Your task to perform on an android device: delete the emails in spam in the gmail app Image 0: 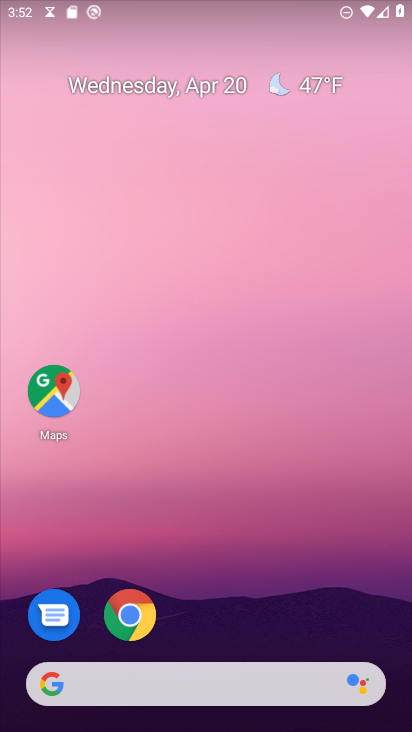
Step 0: click (173, 166)
Your task to perform on an android device: delete the emails in spam in the gmail app Image 1: 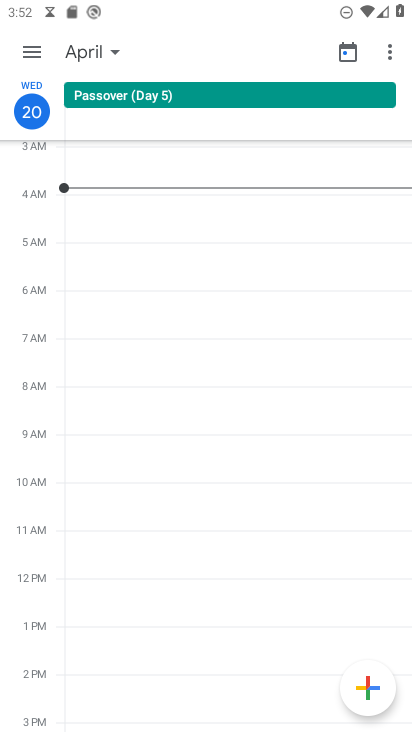
Step 1: press home button
Your task to perform on an android device: delete the emails in spam in the gmail app Image 2: 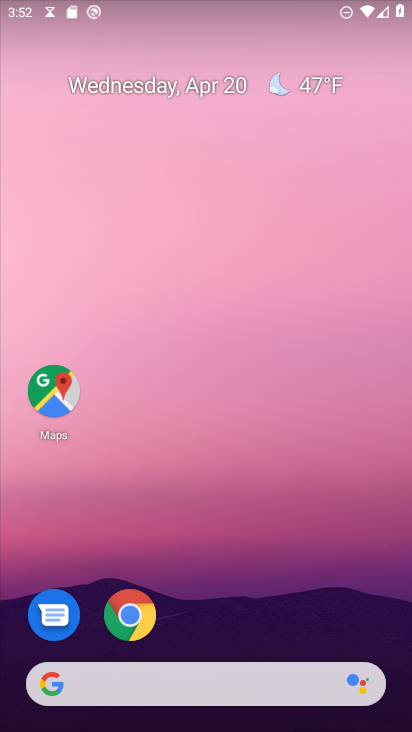
Step 2: drag from (245, 604) to (234, 87)
Your task to perform on an android device: delete the emails in spam in the gmail app Image 3: 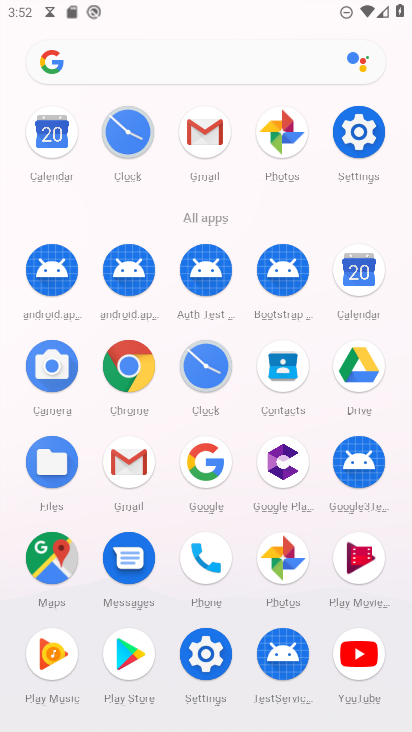
Step 3: click (197, 132)
Your task to perform on an android device: delete the emails in spam in the gmail app Image 4: 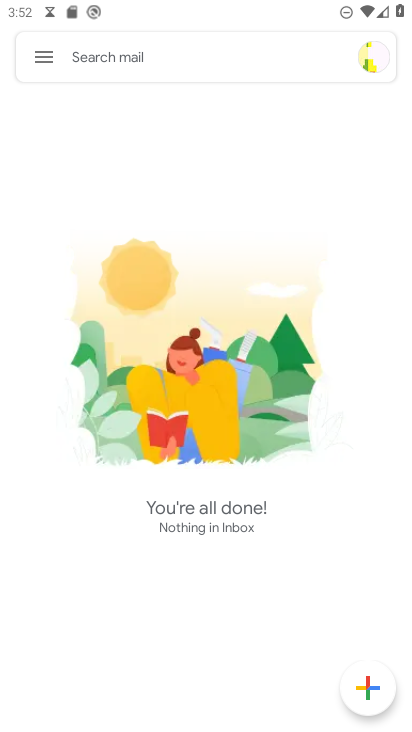
Step 4: click (46, 67)
Your task to perform on an android device: delete the emails in spam in the gmail app Image 5: 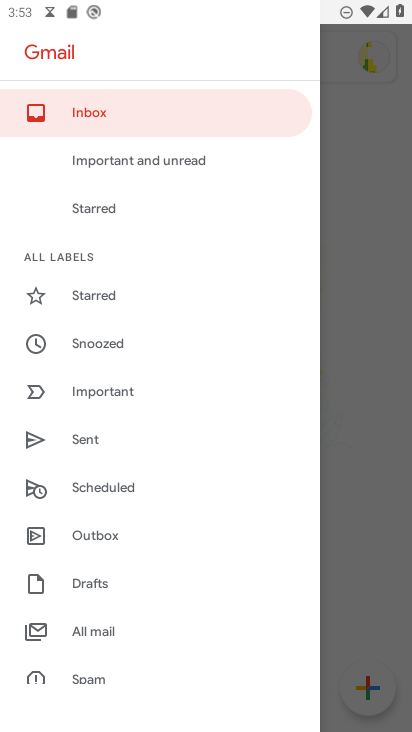
Step 5: click (128, 634)
Your task to perform on an android device: delete the emails in spam in the gmail app Image 6: 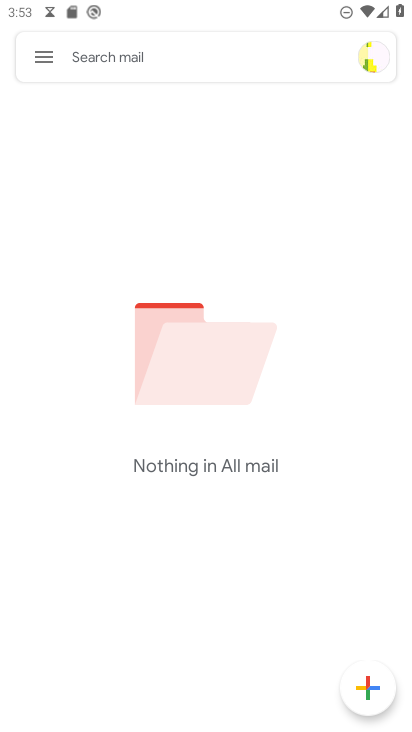
Step 6: click (117, 627)
Your task to perform on an android device: delete the emails in spam in the gmail app Image 7: 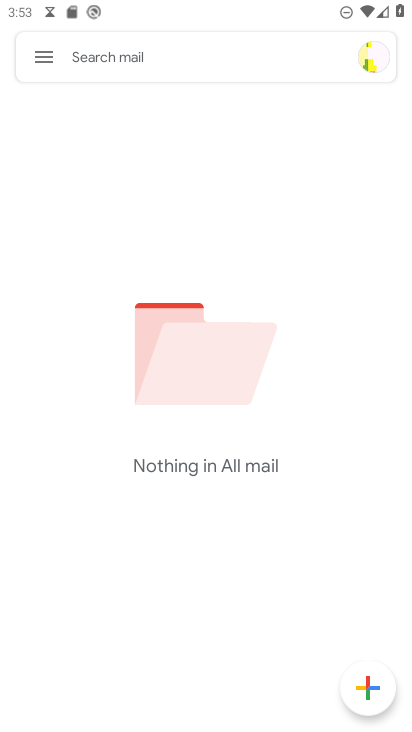
Step 7: task complete